Your task to perform on an android device: Go to settings Image 0: 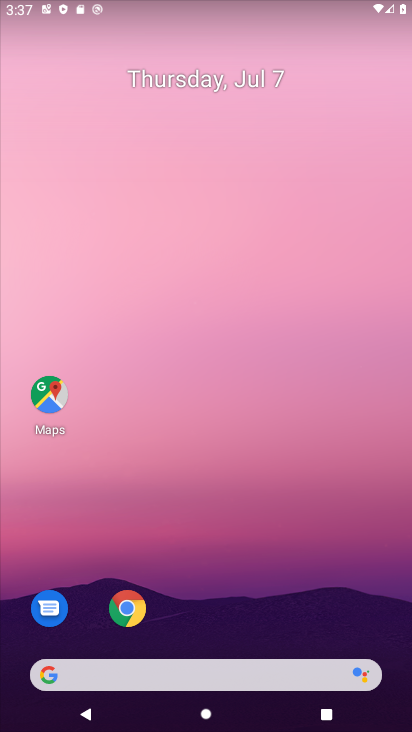
Step 0: drag from (385, 626) to (342, 98)
Your task to perform on an android device: Go to settings Image 1: 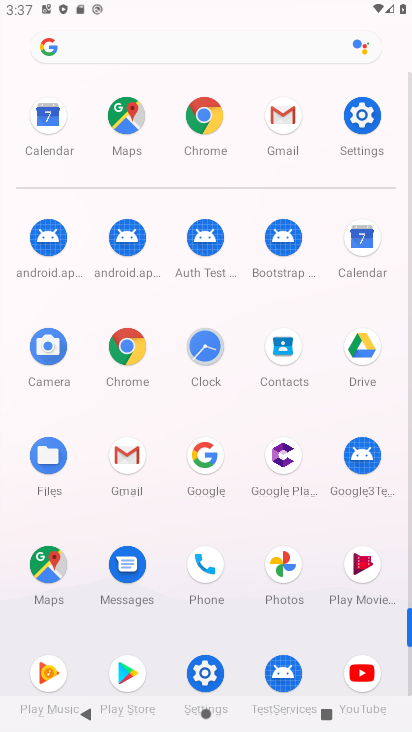
Step 1: click (205, 675)
Your task to perform on an android device: Go to settings Image 2: 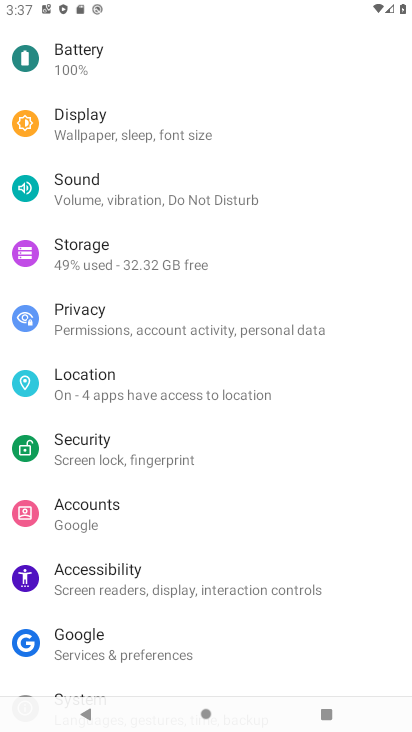
Step 2: task complete